Your task to perform on an android device: Go to ESPN.com Image 0: 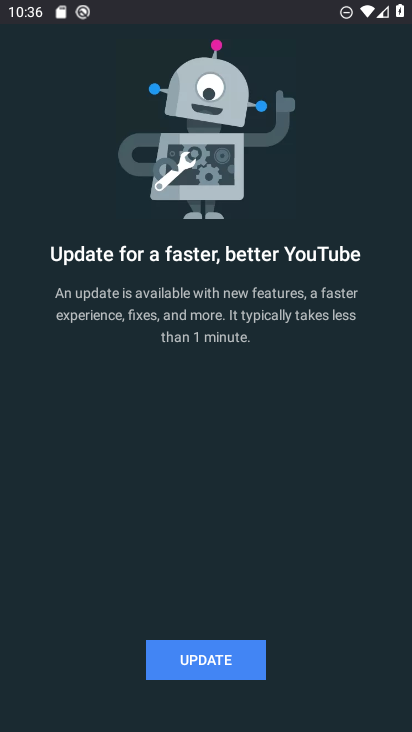
Step 0: press home button
Your task to perform on an android device: Go to ESPN.com Image 1: 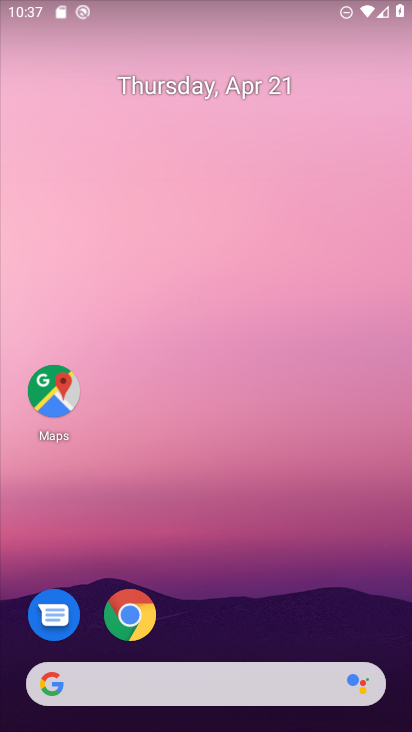
Step 1: click (128, 611)
Your task to perform on an android device: Go to ESPN.com Image 2: 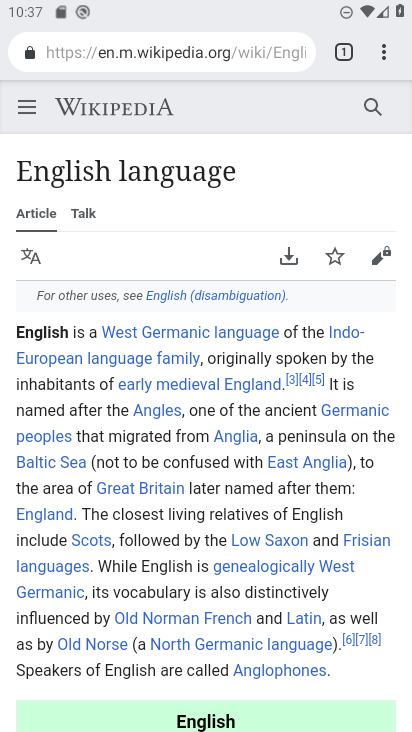
Step 2: drag from (383, 56) to (249, 114)
Your task to perform on an android device: Go to ESPN.com Image 3: 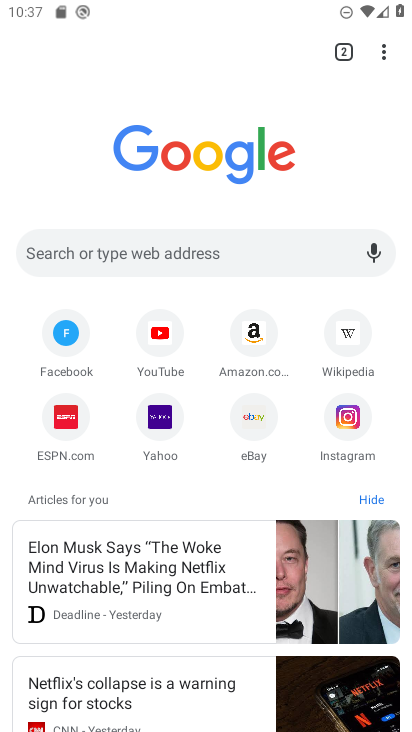
Step 3: click (69, 417)
Your task to perform on an android device: Go to ESPN.com Image 4: 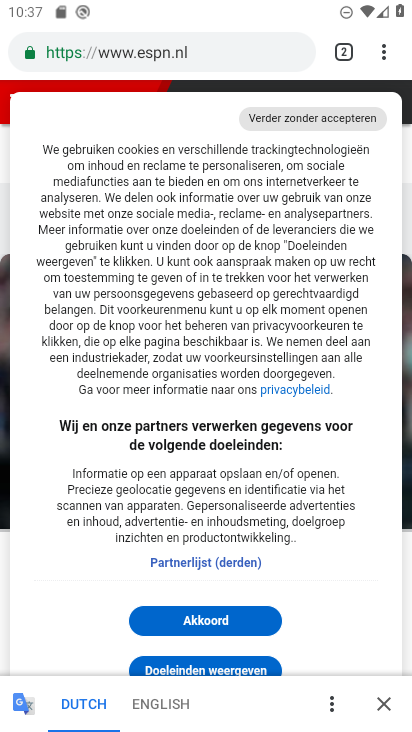
Step 4: task complete